Your task to perform on an android device: delete the emails in spam in the gmail app Image 0: 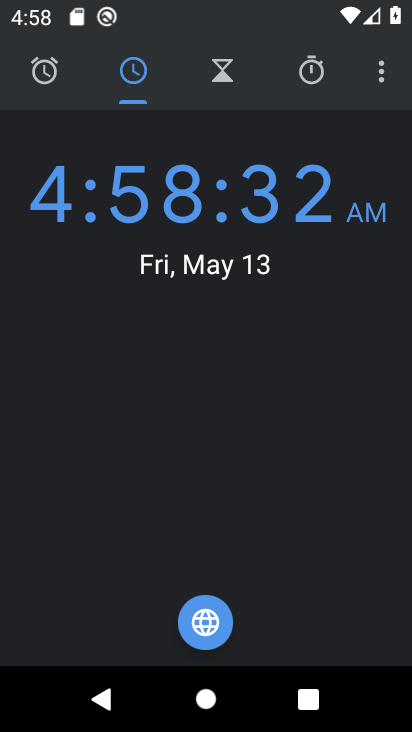
Step 0: press home button
Your task to perform on an android device: delete the emails in spam in the gmail app Image 1: 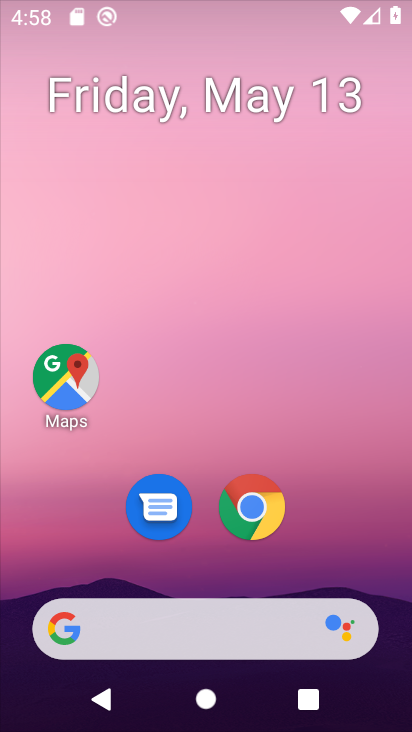
Step 1: drag from (344, 539) to (251, 68)
Your task to perform on an android device: delete the emails in spam in the gmail app Image 2: 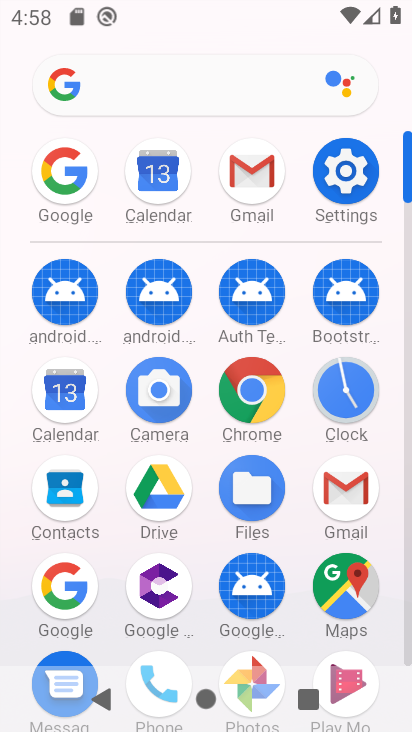
Step 2: click (344, 489)
Your task to perform on an android device: delete the emails in spam in the gmail app Image 3: 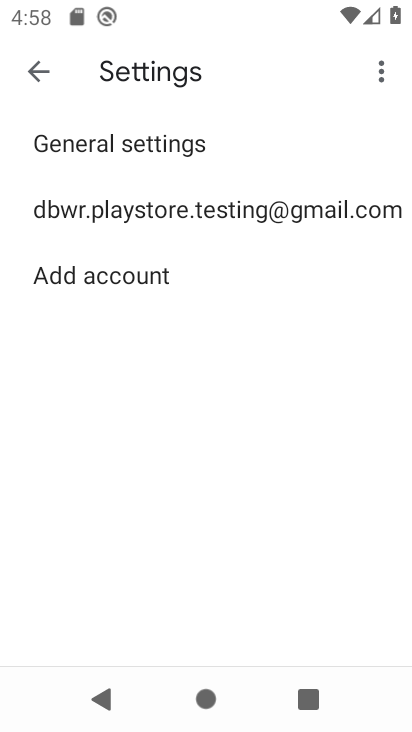
Step 3: click (38, 73)
Your task to perform on an android device: delete the emails in spam in the gmail app Image 4: 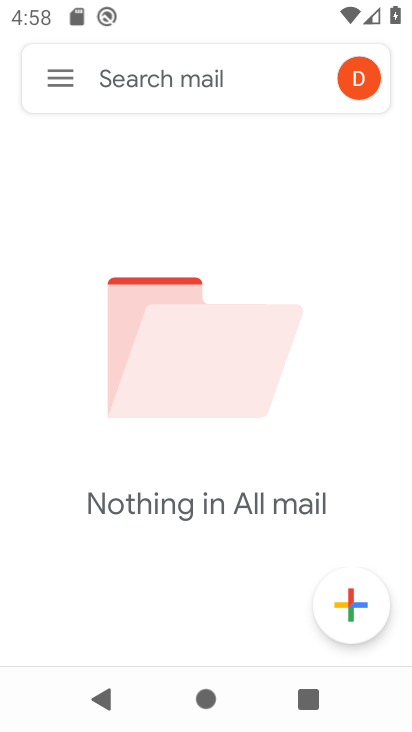
Step 4: click (61, 83)
Your task to perform on an android device: delete the emails in spam in the gmail app Image 5: 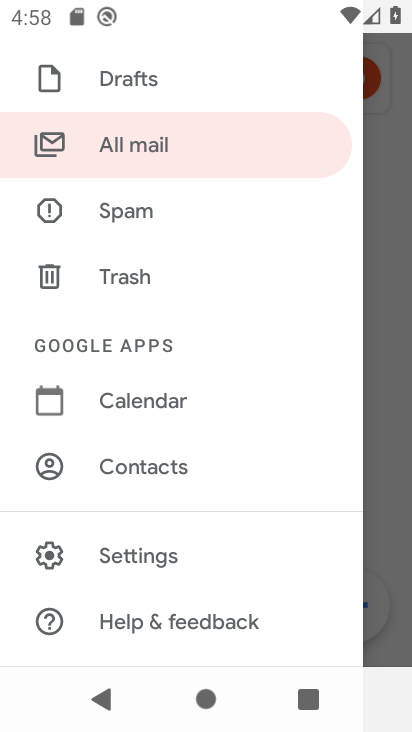
Step 5: click (156, 205)
Your task to perform on an android device: delete the emails in spam in the gmail app Image 6: 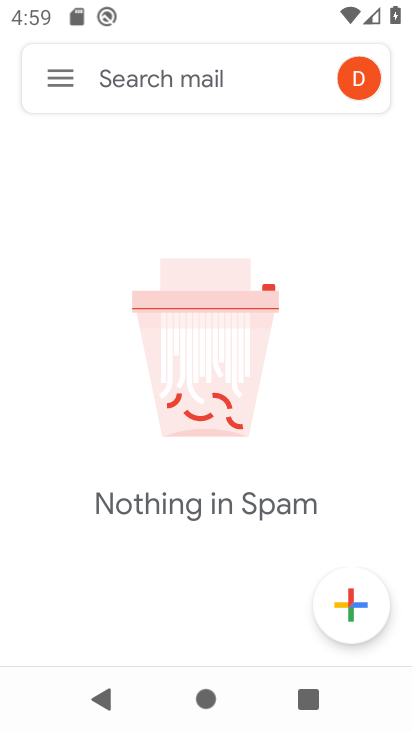
Step 6: task complete